Your task to perform on an android device: Go to network settings Image 0: 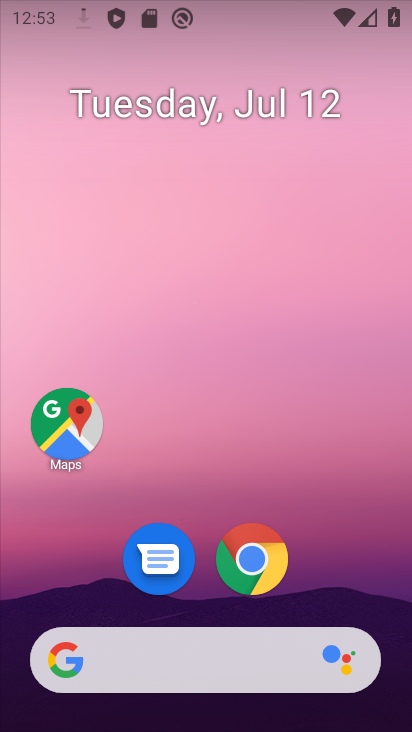
Step 0: drag from (362, 582) to (356, 194)
Your task to perform on an android device: Go to network settings Image 1: 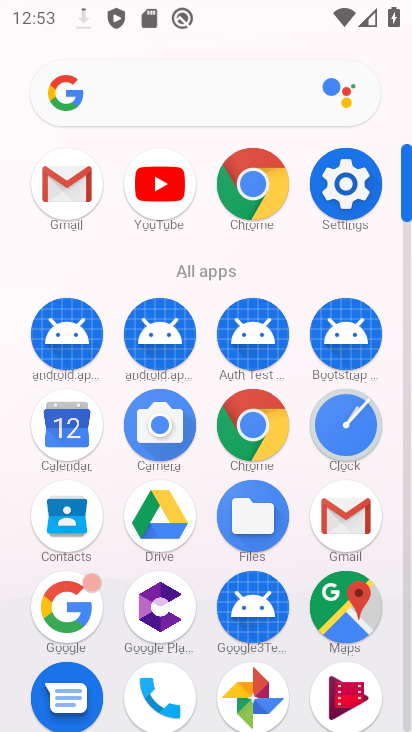
Step 1: click (357, 201)
Your task to perform on an android device: Go to network settings Image 2: 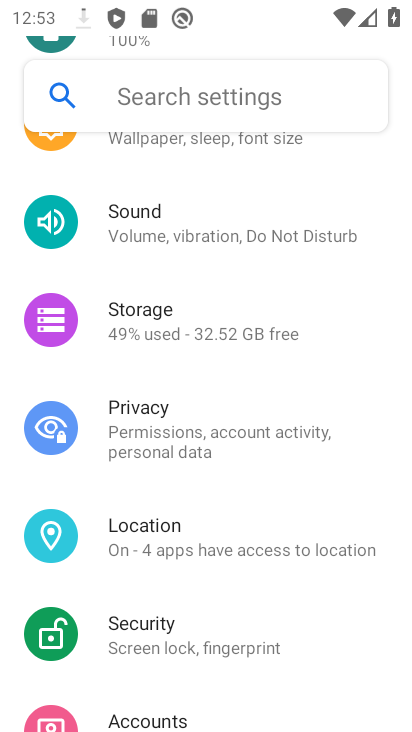
Step 2: drag from (357, 294) to (363, 461)
Your task to perform on an android device: Go to network settings Image 3: 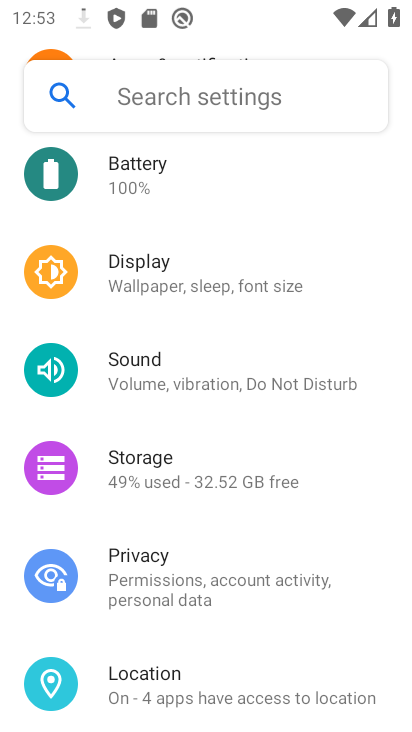
Step 3: drag from (362, 252) to (363, 494)
Your task to perform on an android device: Go to network settings Image 4: 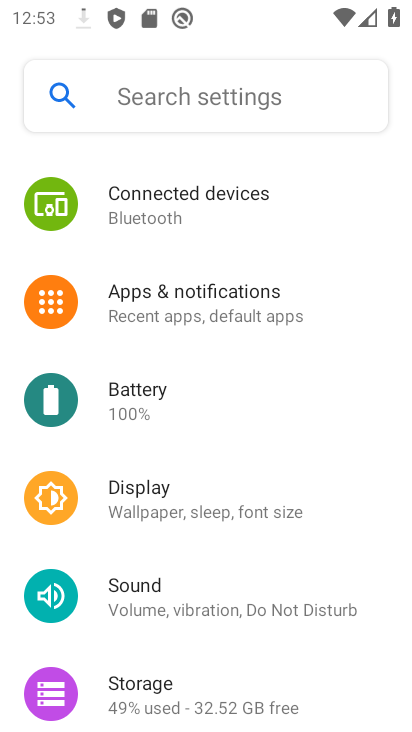
Step 4: drag from (339, 265) to (349, 392)
Your task to perform on an android device: Go to network settings Image 5: 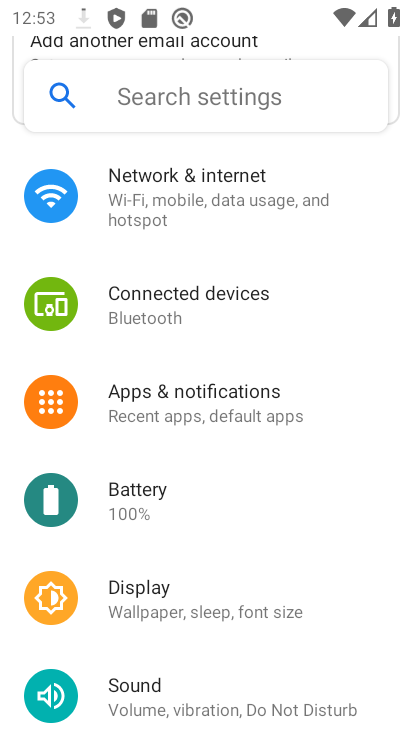
Step 5: drag from (339, 262) to (348, 417)
Your task to perform on an android device: Go to network settings Image 6: 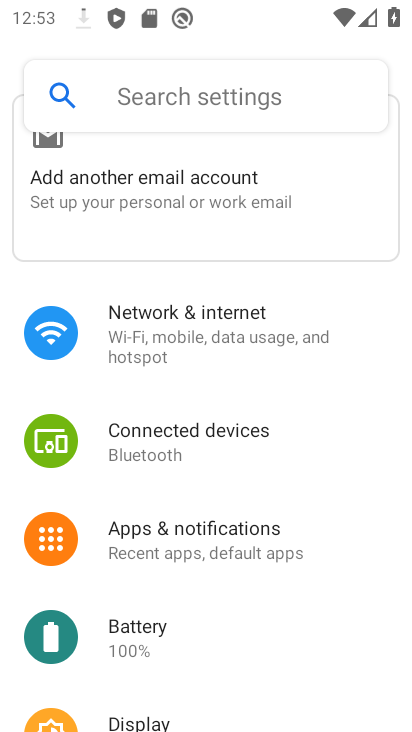
Step 6: drag from (353, 207) to (357, 412)
Your task to perform on an android device: Go to network settings Image 7: 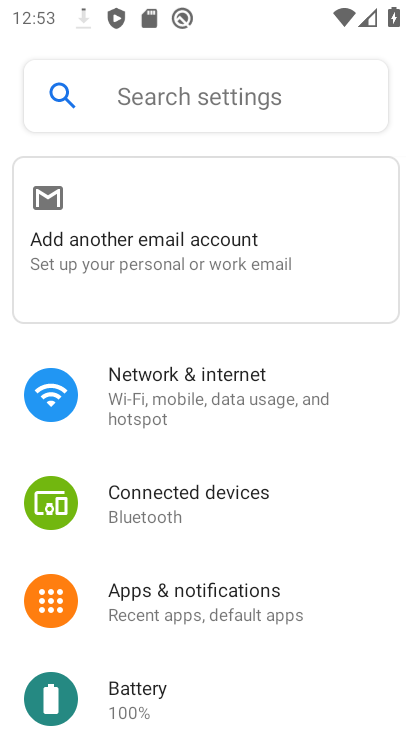
Step 7: click (265, 394)
Your task to perform on an android device: Go to network settings Image 8: 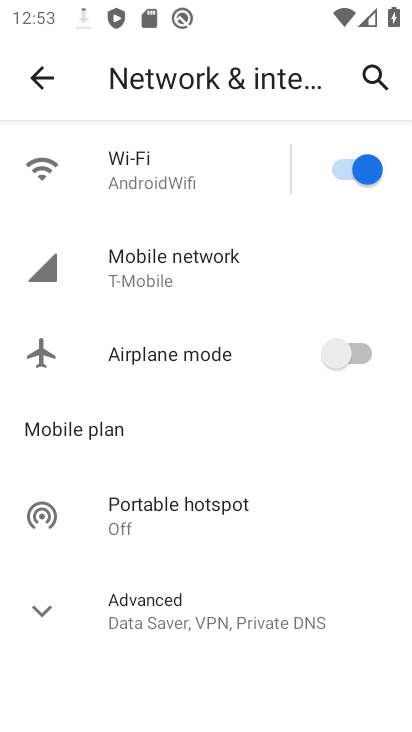
Step 8: task complete